Your task to perform on an android device: Go to Reddit.com Image 0: 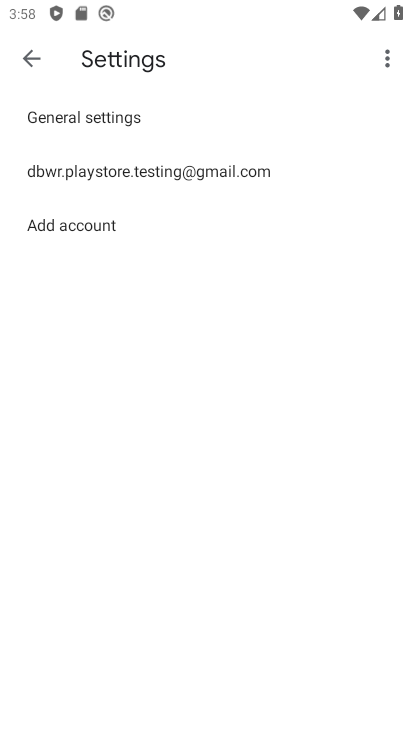
Step 0: press home button
Your task to perform on an android device: Go to Reddit.com Image 1: 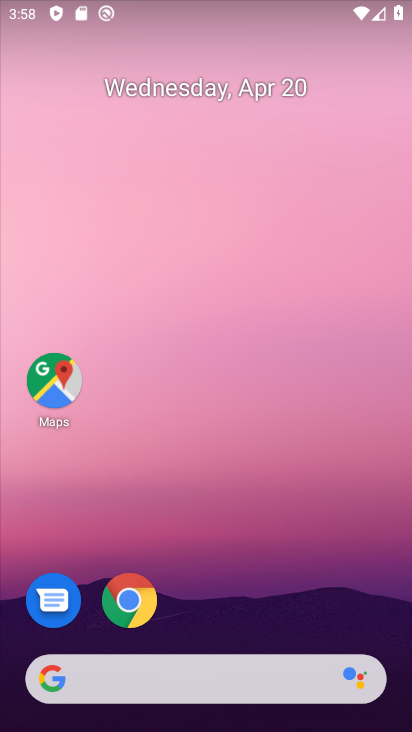
Step 1: click (119, 598)
Your task to perform on an android device: Go to Reddit.com Image 2: 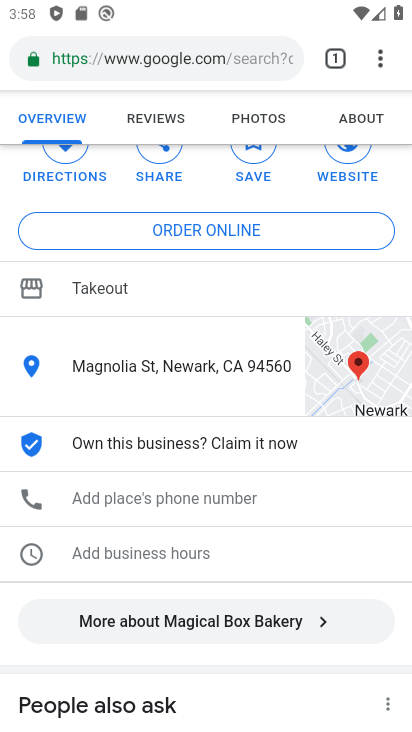
Step 2: click (331, 53)
Your task to perform on an android device: Go to Reddit.com Image 3: 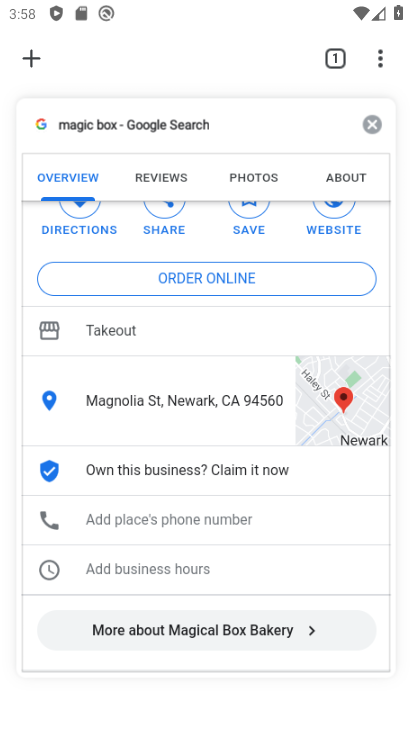
Step 3: click (379, 124)
Your task to perform on an android device: Go to Reddit.com Image 4: 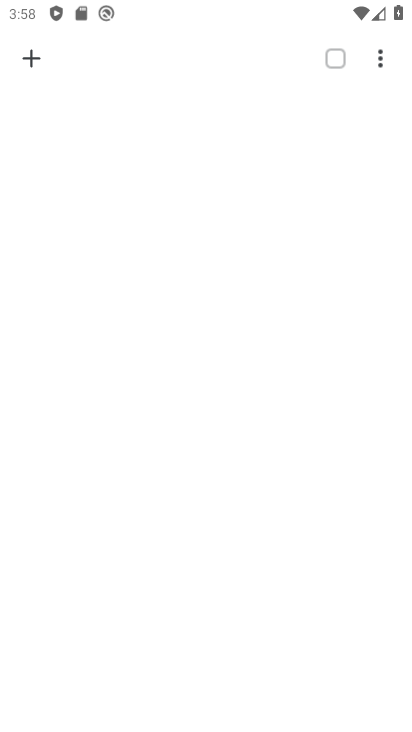
Step 4: click (33, 57)
Your task to perform on an android device: Go to Reddit.com Image 5: 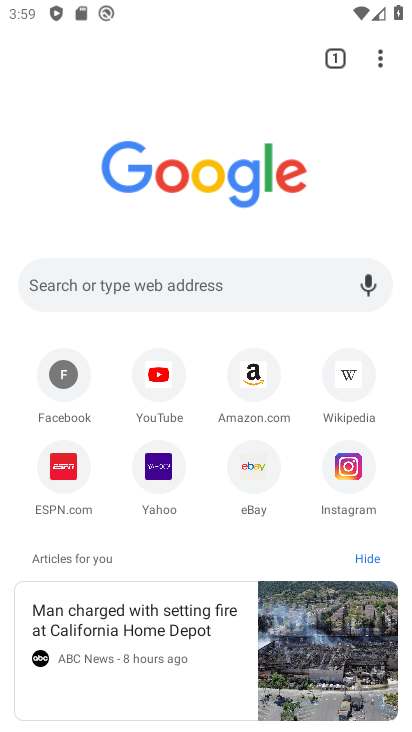
Step 5: click (133, 286)
Your task to perform on an android device: Go to Reddit.com Image 6: 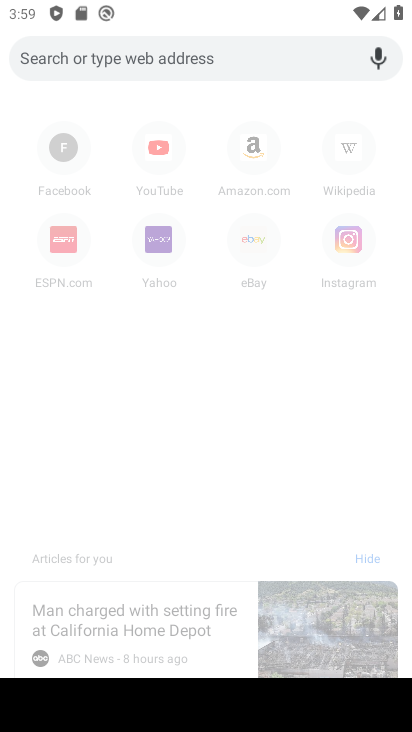
Step 6: type "reddit"
Your task to perform on an android device: Go to Reddit.com Image 7: 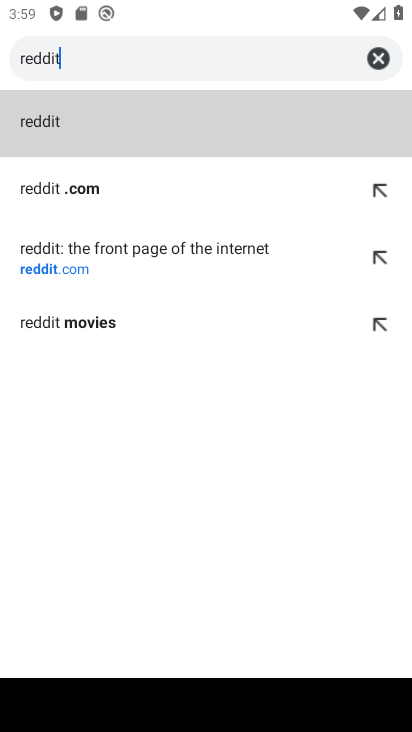
Step 7: click (117, 264)
Your task to perform on an android device: Go to Reddit.com Image 8: 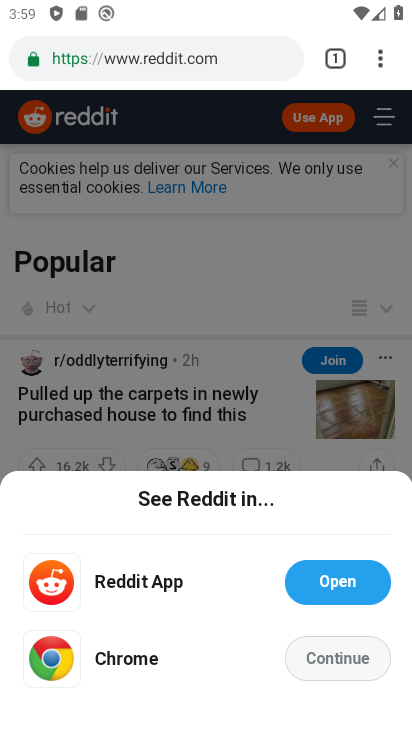
Step 8: click (362, 659)
Your task to perform on an android device: Go to Reddit.com Image 9: 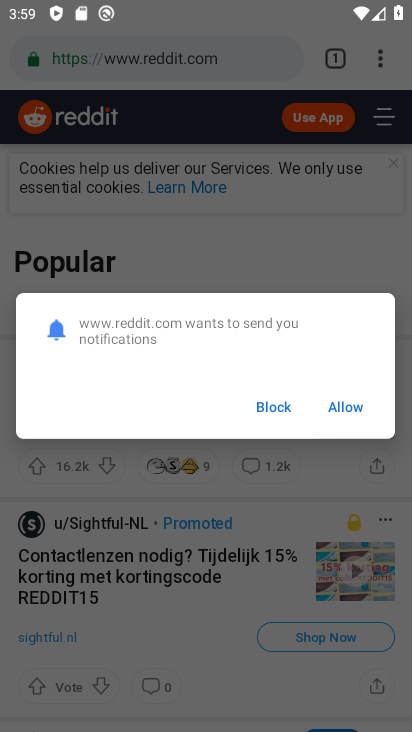
Step 9: click (269, 404)
Your task to perform on an android device: Go to Reddit.com Image 10: 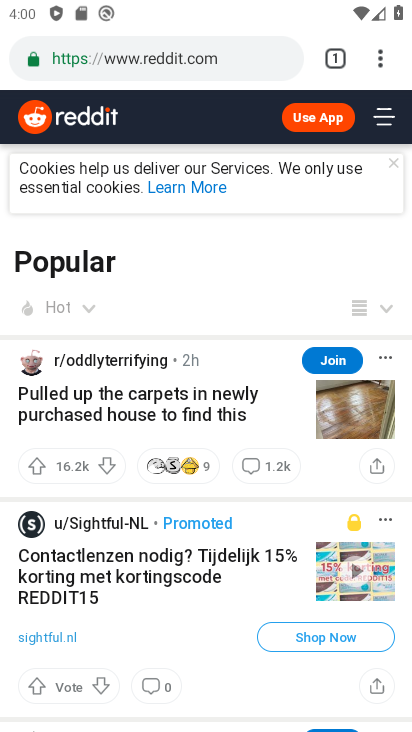
Step 10: task complete